Your task to perform on an android device: turn notification dots off Image 0: 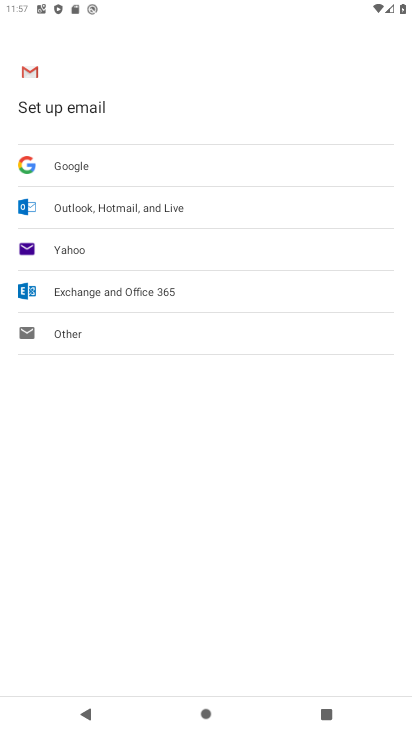
Step 0: press home button
Your task to perform on an android device: turn notification dots off Image 1: 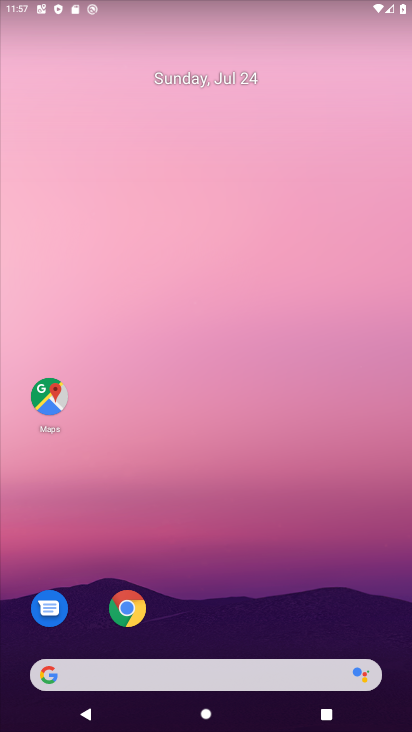
Step 1: drag from (241, 594) to (223, 6)
Your task to perform on an android device: turn notification dots off Image 2: 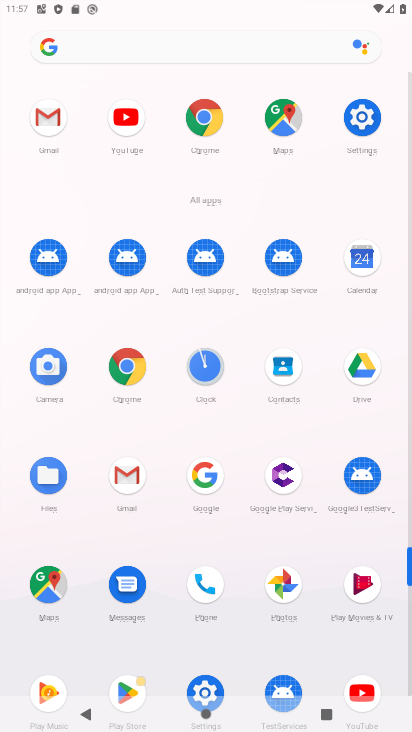
Step 2: click (364, 127)
Your task to perform on an android device: turn notification dots off Image 3: 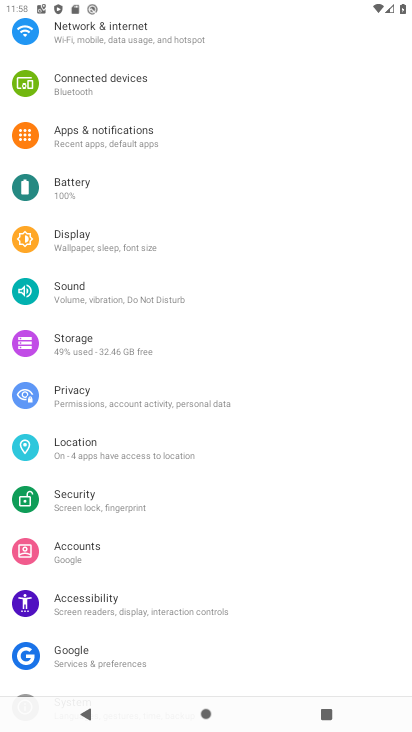
Step 3: click (111, 152)
Your task to perform on an android device: turn notification dots off Image 4: 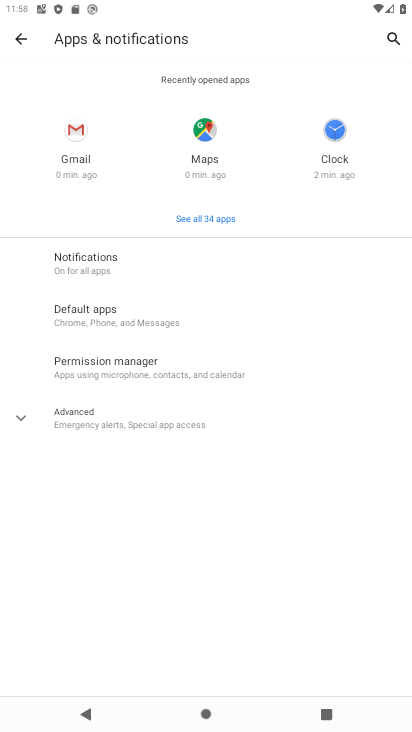
Step 4: click (57, 272)
Your task to perform on an android device: turn notification dots off Image 5: 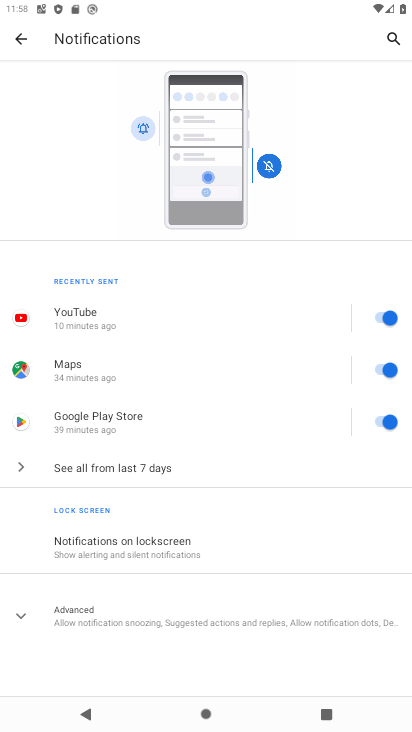
Step 5: drag from (174, 554) to (189, 309)
Your task to perform on an android device: turn notification dots off Image 6: 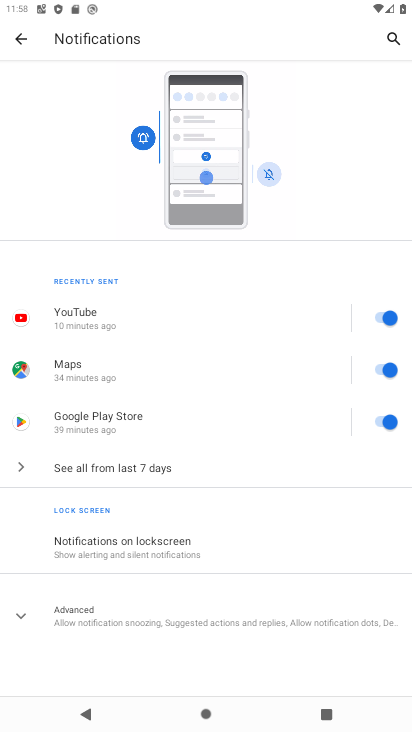
Step 6: click (16, 619)
Your task to perform on an android device: turn notification dots off Image 7: 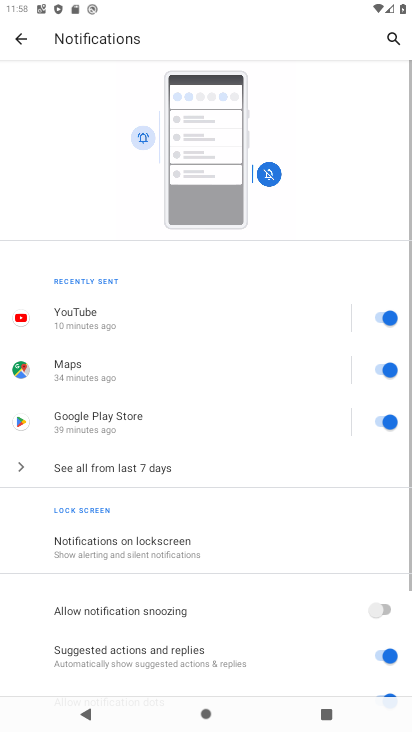
Step 7: drag from (146, 611) to (138, 324)
Your task to perform on an android device: turn notification dots off Image 8: 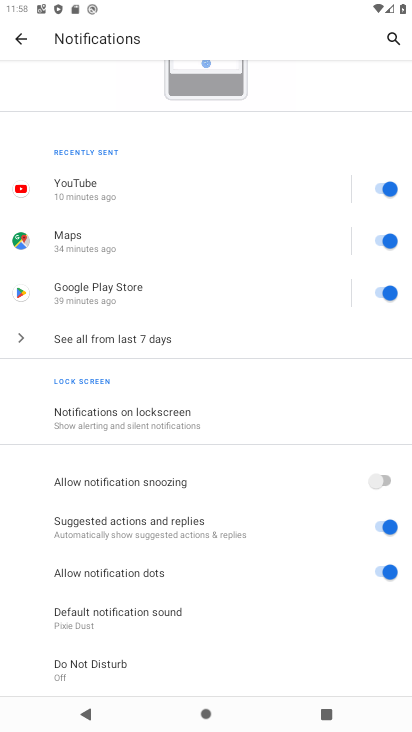
Step 8: click (388, 576)
Your task to perform on an android device: turn notification dots off Image 9: 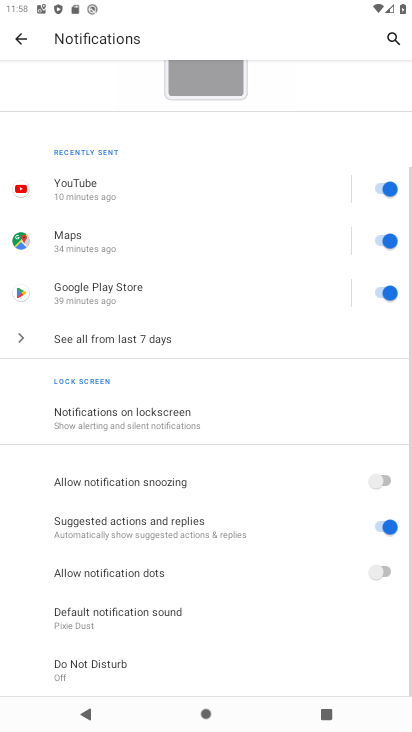
Step 9: task complete